Your task to perform on an android device: Go to Android settings Image 0: 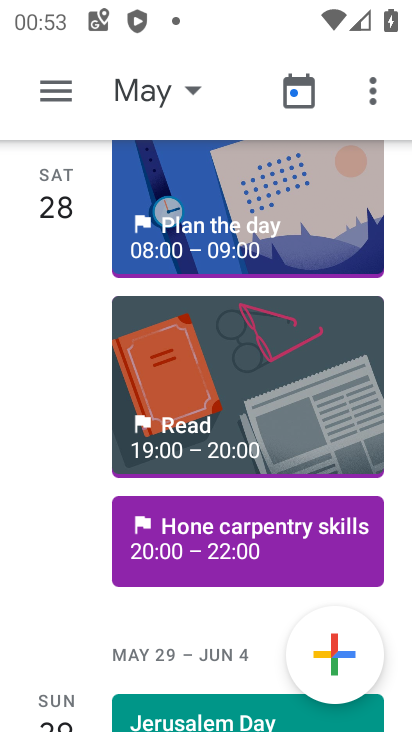
Step 0: press home button
Your task to perform on an android device: Go to Android settings Image 1: 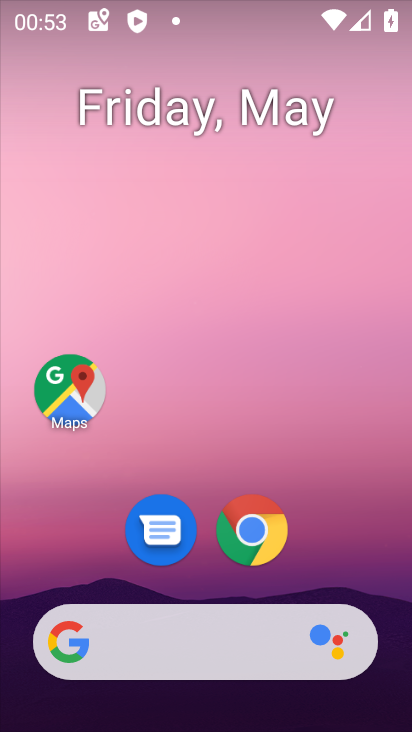
Step 1: drag from (332, 550) to (253, 186)
Your task to perform on an android device: Go to Android settings Image 2: 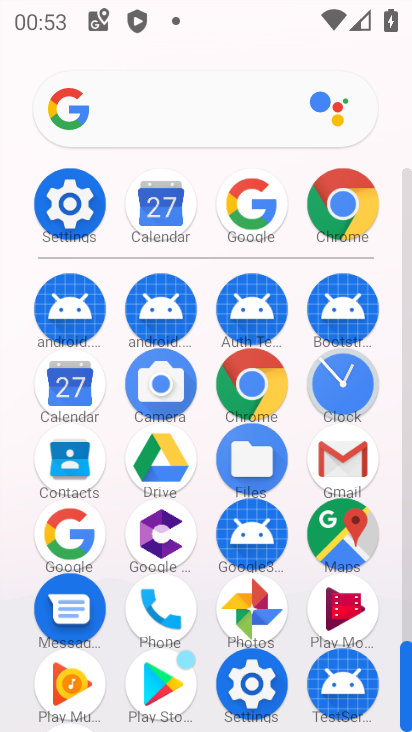
Step 2: click (69, 203)
Your task to perform on an android device: Go to Android settings Image 3: 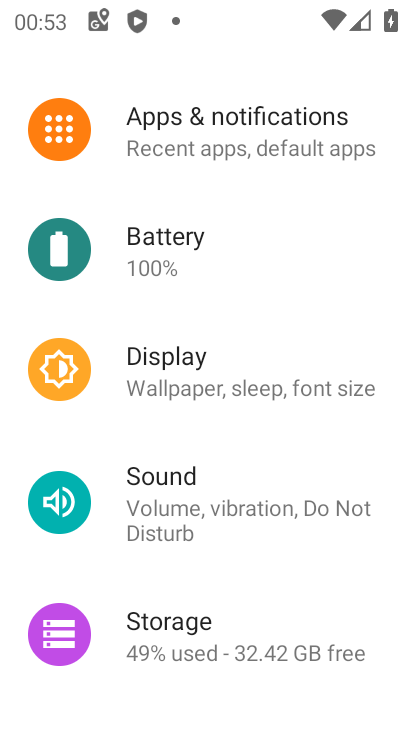
Step 3: task complete